Your task to perform on an android device: turn off priority inbox in the gmail app Image 0: 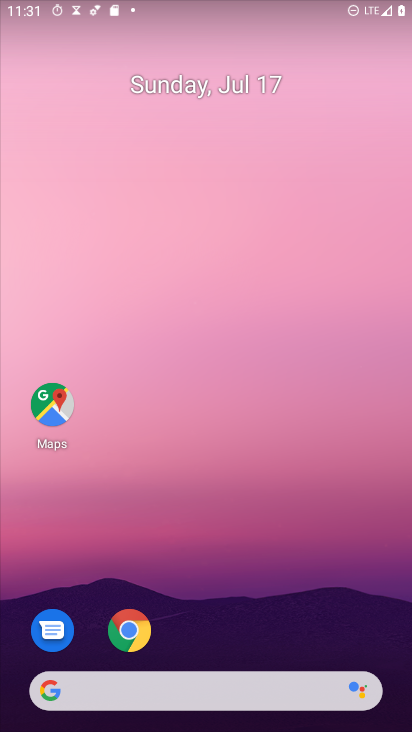
Step 0: drag from (187, 241) to (217, 7)
Your task to perform on an android device: turn off priority inbox in the gmail app Image 1: 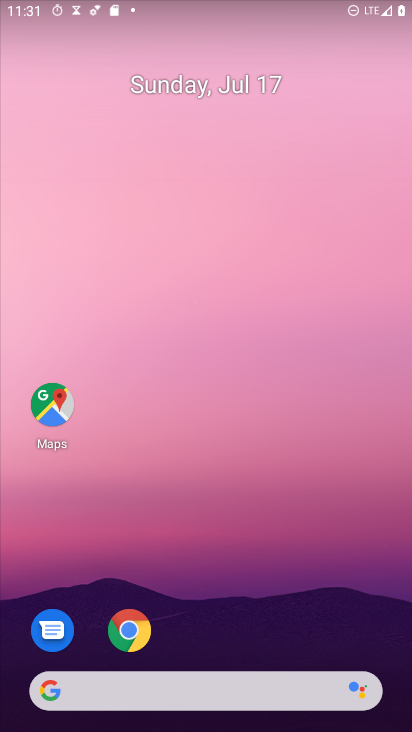
Step 1: drag from (203, 692) to (280, 22)
Your task to perform on an android device: turn off priority inbox in the gmail app Image 2: 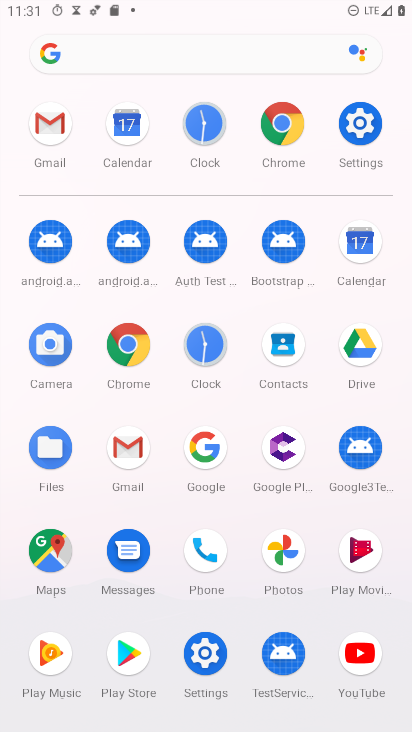
Step 2: click (124, 437)
Your task to perform on an android device: turn off priority inbox in the gmail app Image 3: 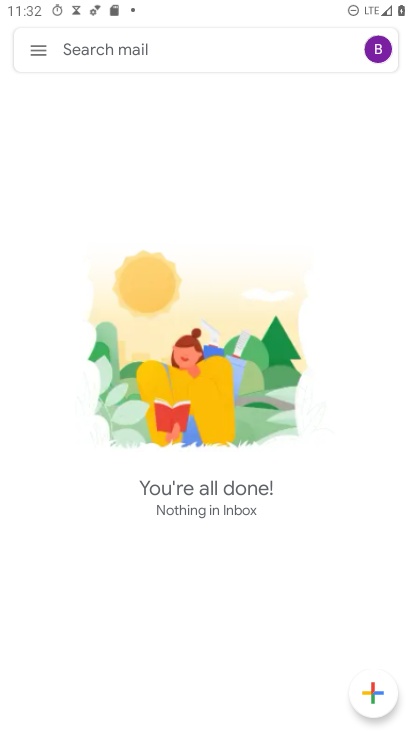
Step 3: click (37, 42)
Your task to perform on an android device: turn off priority inbox in the gmail app Image 4: 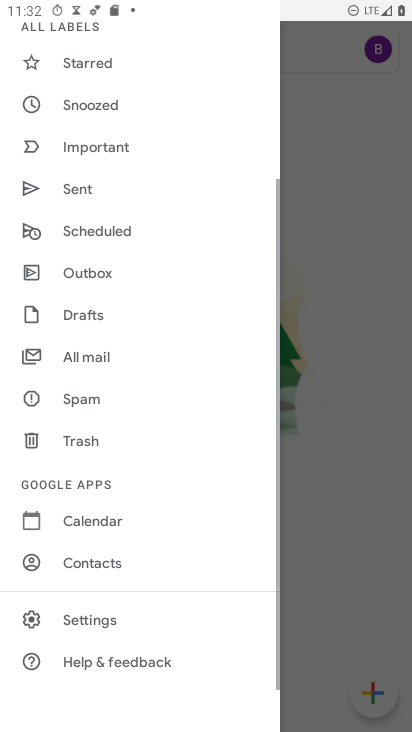
Step 4: click (105, 620)
Your task to perform on an android device: turn off priority inbox in the gmail app Image 5: 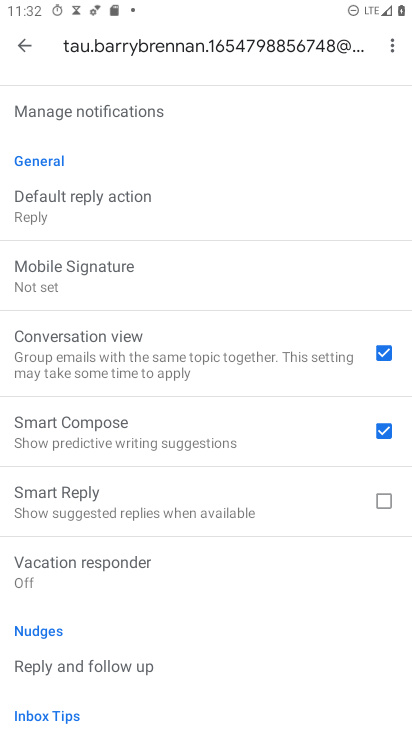
Step 5: drag from (89, 161) to (179, 722)
Your task to perform on an android device: turn off priority inbox in the gmail app Image 6: 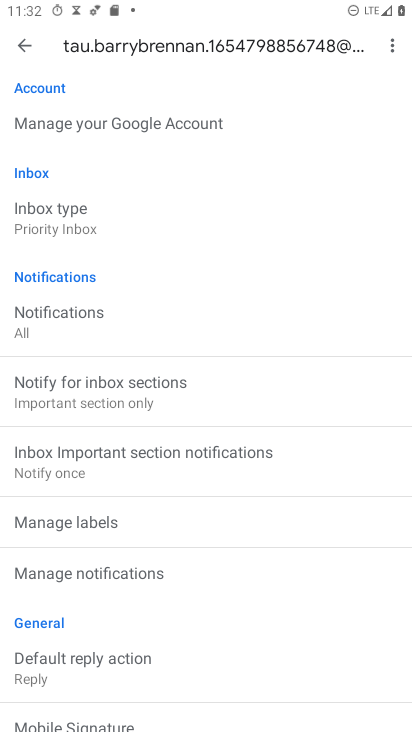
Step 6: click (84, 220)
Your task to perform on an android device: turn off priority inbox in the gmail app Image 7: 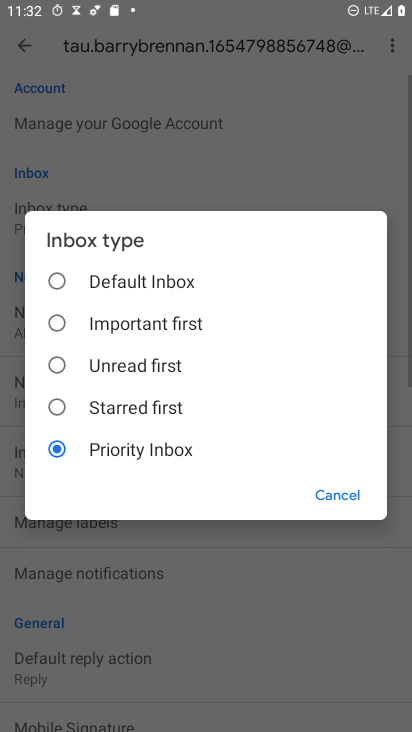
Step 7: click (82, 277)
Your task to perform on an android device: turn off priority inbox in the gmail app Image 8: 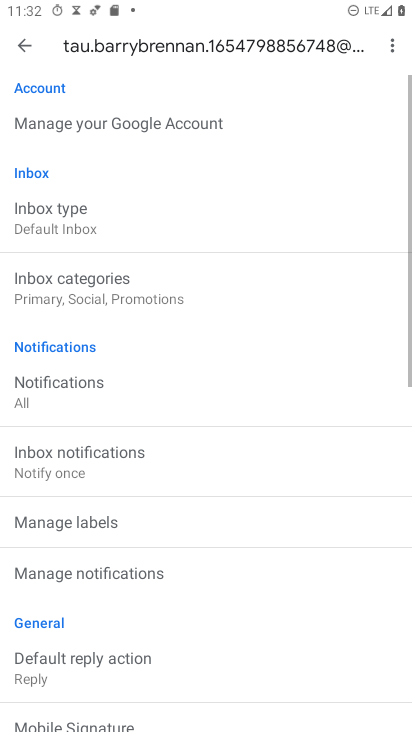
Step 8: task complete